Your task to perform on an android device: turn notification dots on Image 0: 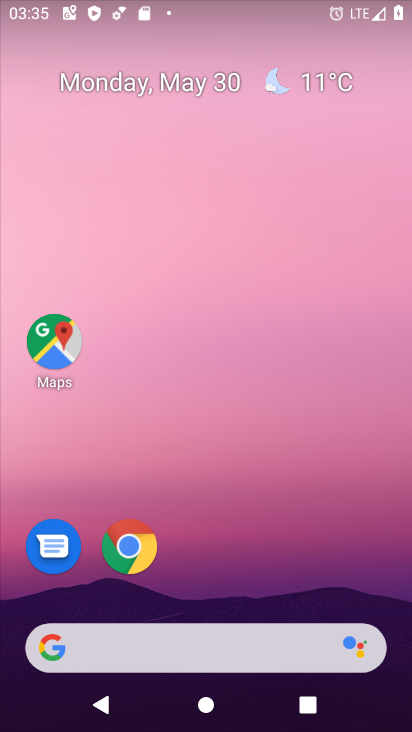
Step 0: drag from (211, 608) to (224, 19)
Your task to perform on an android device: turn notification dots on Image 1: 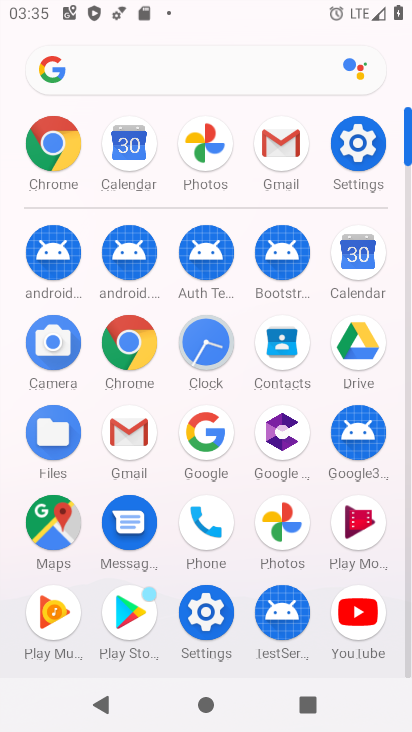
Step 1: click (353, 130)
Your task to perform on an android device: turn notification dots on Image 2: 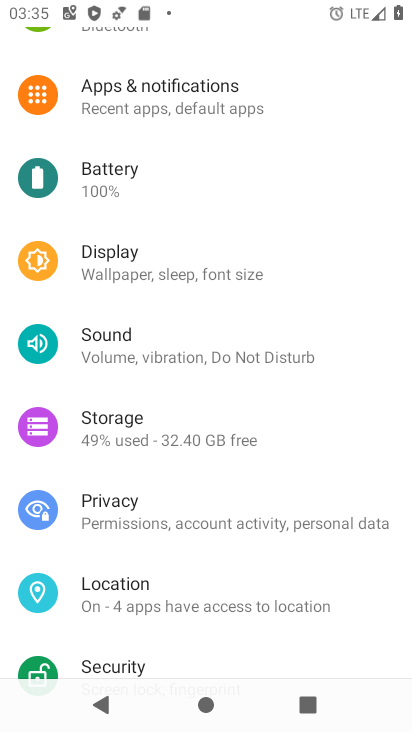
Step 2: click (159, 95)
Your task to perform on an android device: turn notification dots on Image 3: 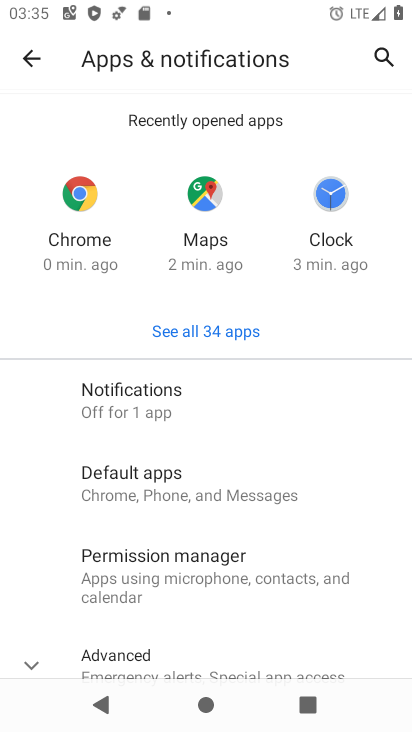
Step 3: click (198, 403)
Your task to perform on an android device: turn notification dots on Image 4: 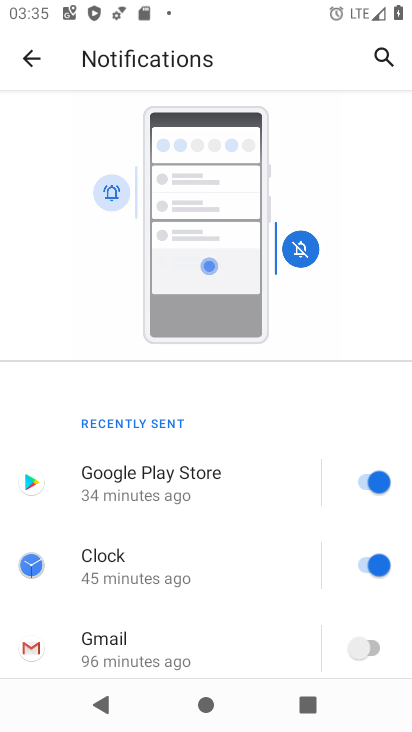
Step 4: drag from (265, 606) to (276, 76)
Your task to perform on an android device: turn notification dots on Image 5: 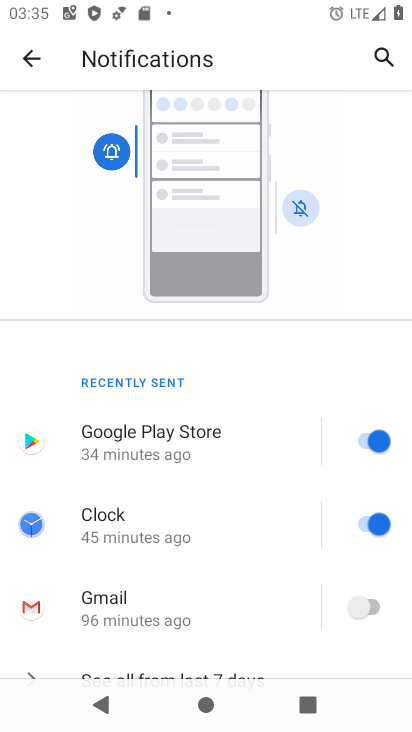
Step 5: drag from (256, 605) to (282, 162)
Your task to perform on an android device: turn notification dots on Image 6: 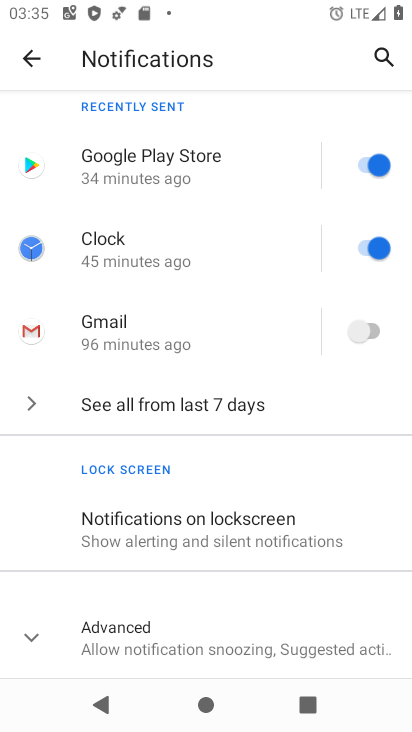
Step 6: click (155, 613)
Your task to perform on an android device: turn notification dots on Image 7: 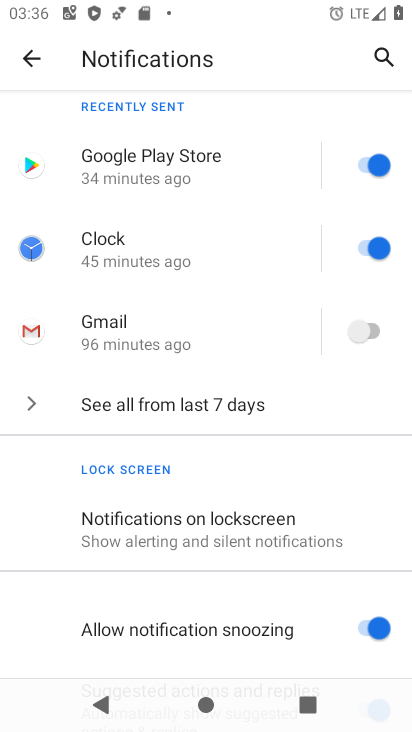
Step 7: task complete